Your task to perform on an android device: turn on sleep mode Image 0: 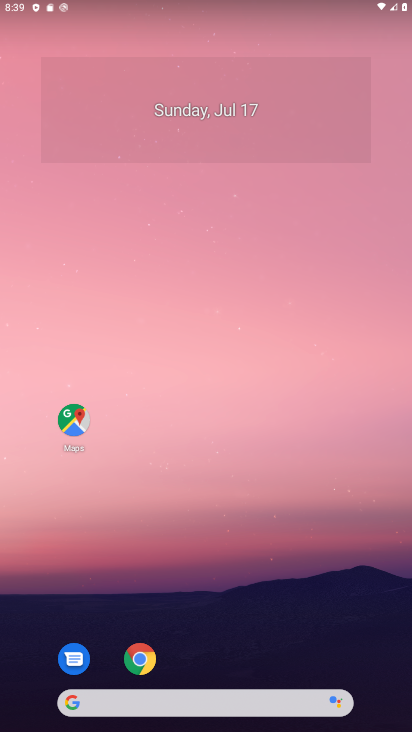
Step 0: drag from (239, 701) to (268, 105)
Your task to perform on an android device: turn on sleep mode Image 1: 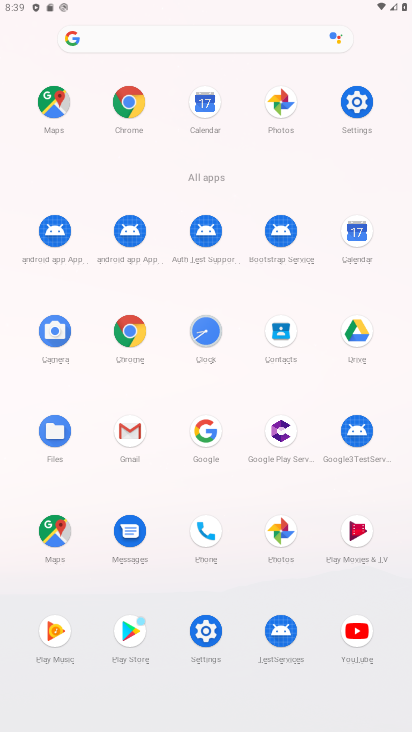
Step 1: click (358, 104)
Your task to perform on an android device: turn on sleep mode Image 2: 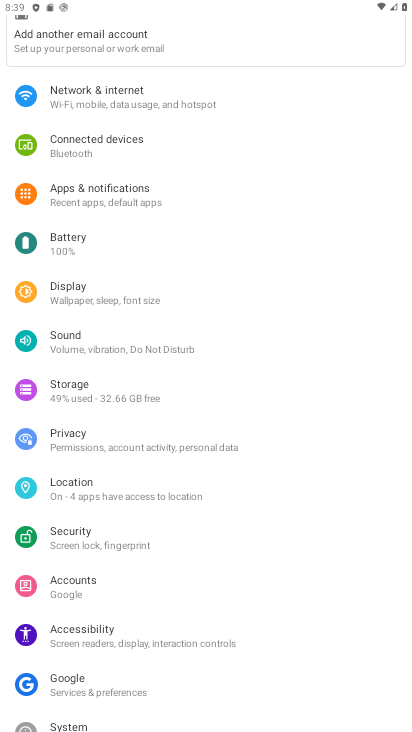
Step 2: drag from (104, 335) to (158, 241)
Your task to perform on an android device: turn on sleep mode Image 3: 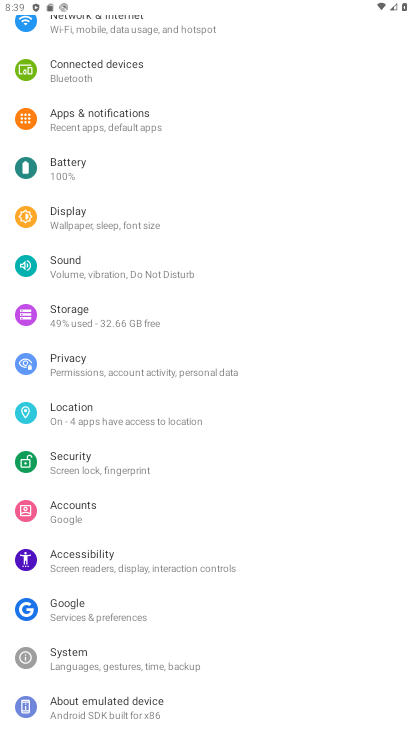
Step 3: drag from (111, 203) to (122, 288)
Your task to perform on an android device: turn on sleep mode Image 4: 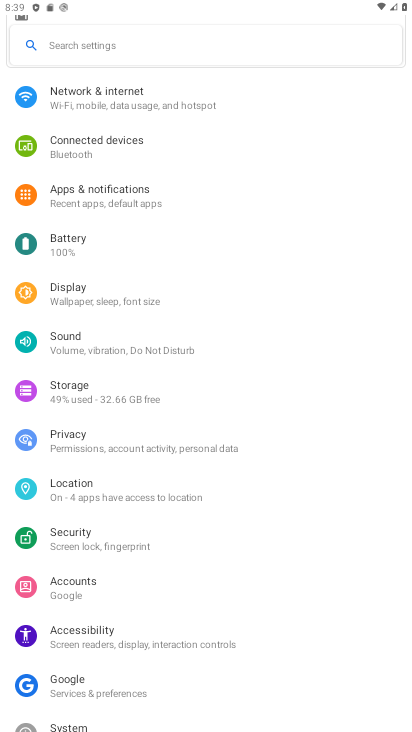
Step 4: click (102, 307)
Your task to perform on an android device: turn on sleep mode Image 5: 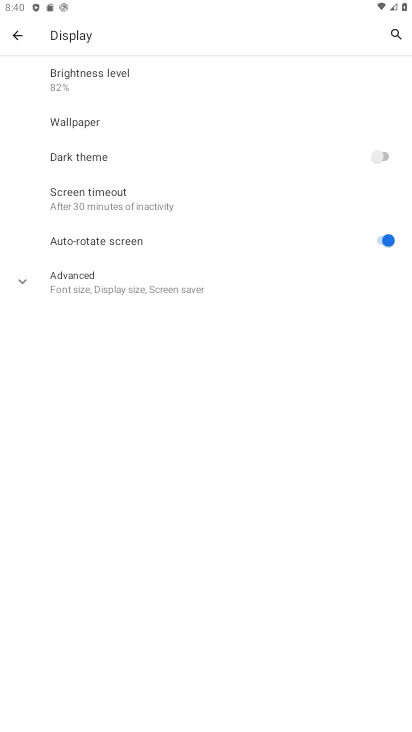
Step 5: click (121, 283)
Your task to perform on an android device: turn on sleep mode Image 6: 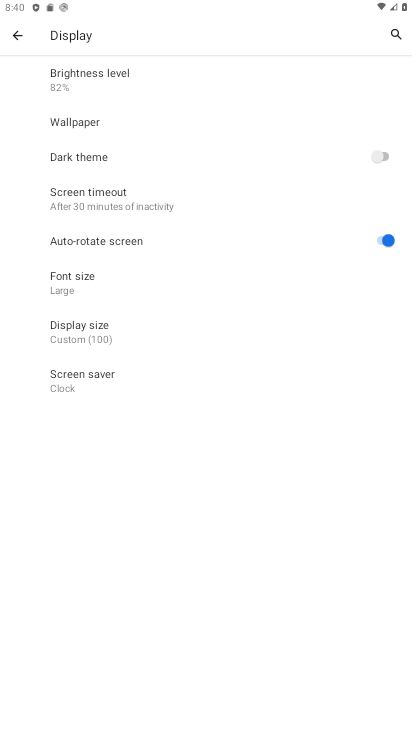
Step 6: click (103, 379)
Your task to perform on an android device: turn on sleep mode Image 7: 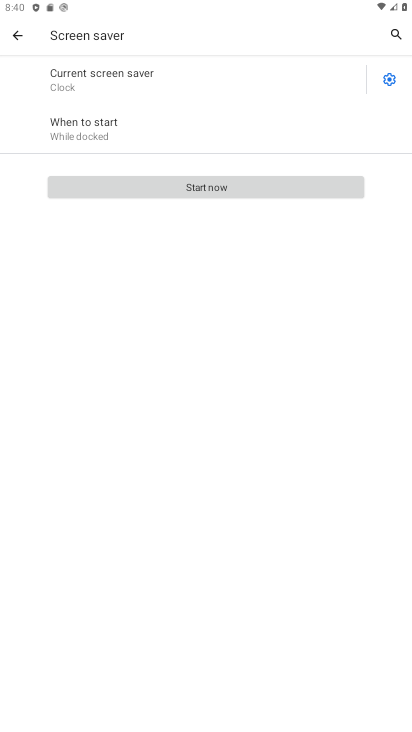
Step 7: task complete